Your task to perform on an android device: open the mobile data screen to see how much data has been used Image 0: 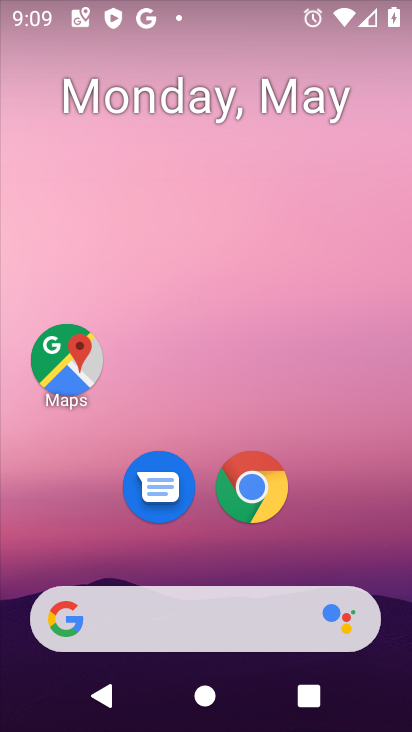
Step 0: drag from (180, 428) to (164, 619)
Your task to perform on an android device: open the mobile data screen to see how much data has been used Image 1: 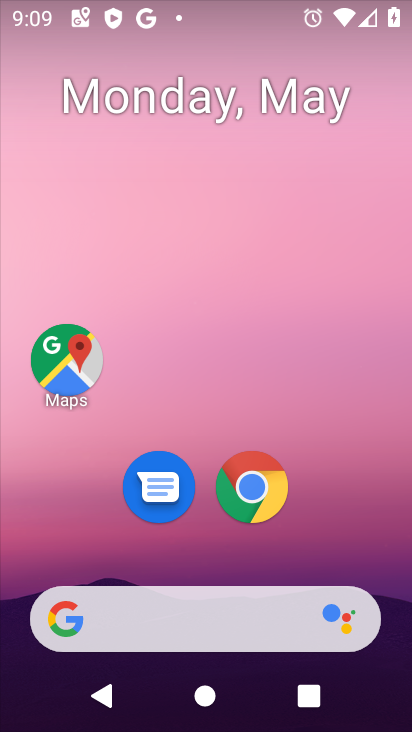
Step 1: drag from (248, 9) to (145, 506)
Your task to perform on an android device: open the mobile data screen to see how much data has been used Image 2: 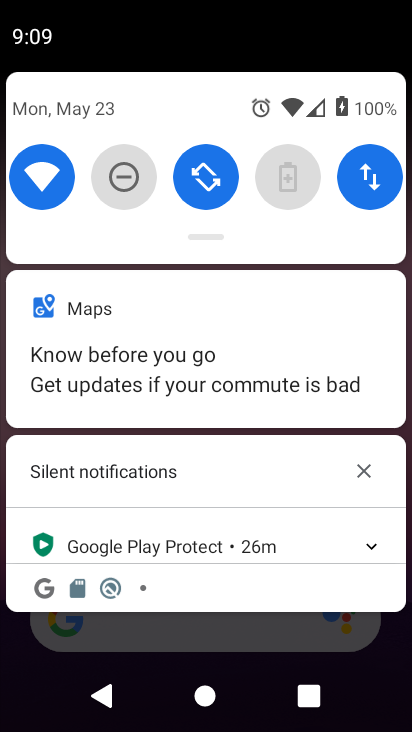
Step 2: click (388, 176)
Your task to perform on an android device: open the mobile data screen to see how much data has been used Image 3: 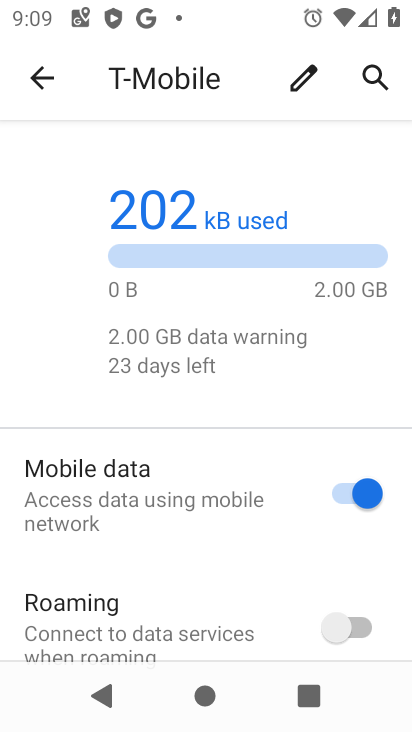
Step 3: task complete